Your task to perform on an android device: check android version Image 0: 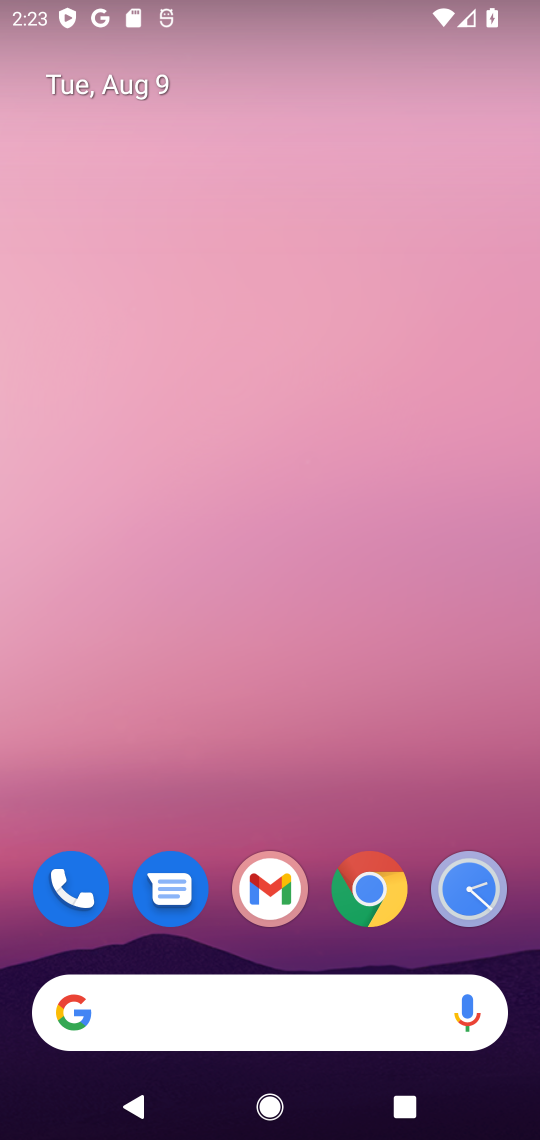
Step 0: drag from (309, 819) to (406, 0)
Your task to perform on an android device: check android version Image 1: 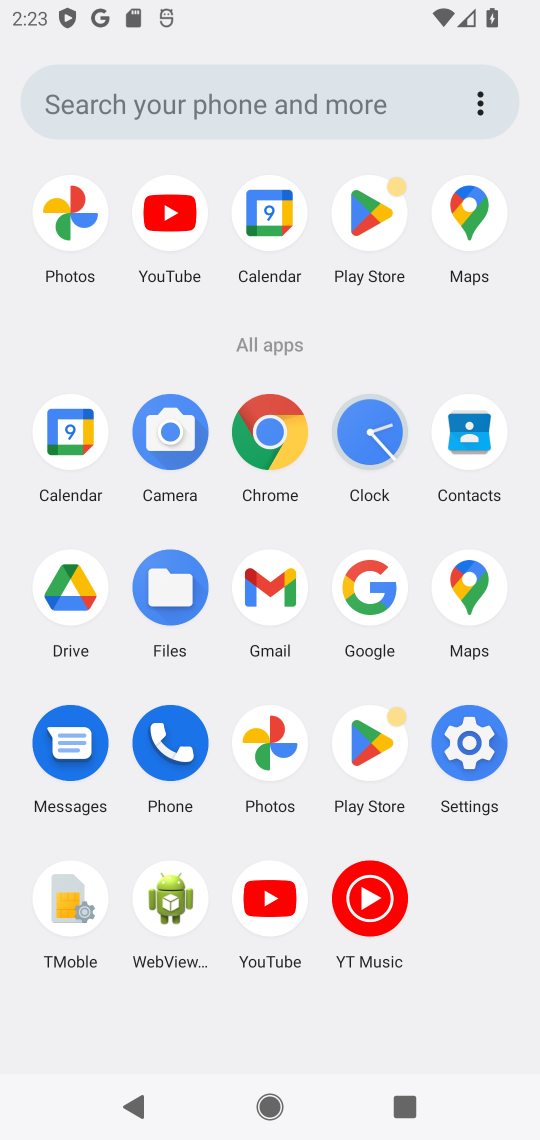
Step 1: click (473, 747)
Your task to perform on an android device: check android version Image 2: 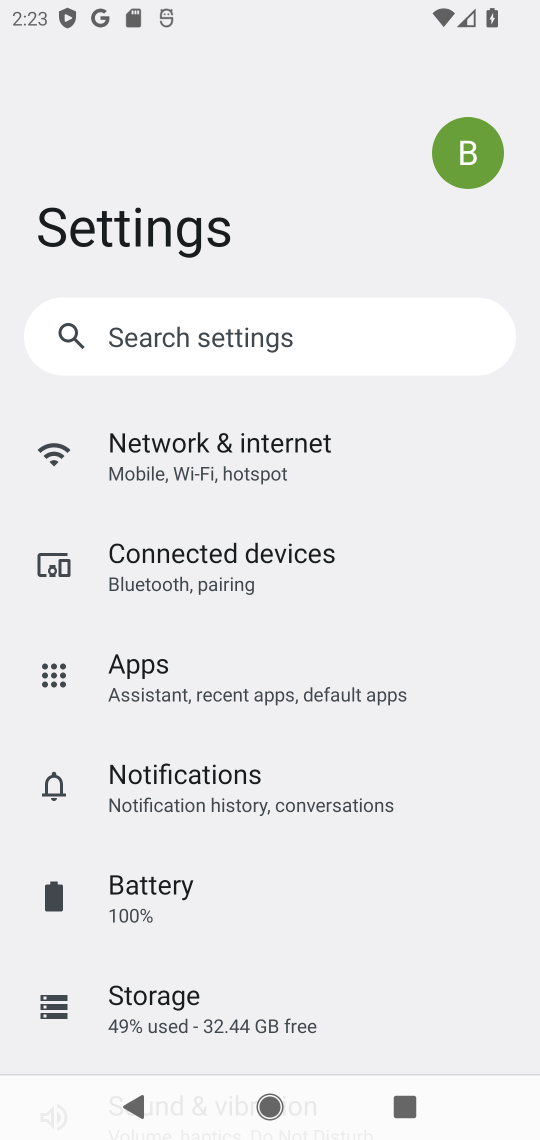
Step 2: drag from (306, 944) to (356, 0)
Your task to perform on an android device: check android version Image 3: 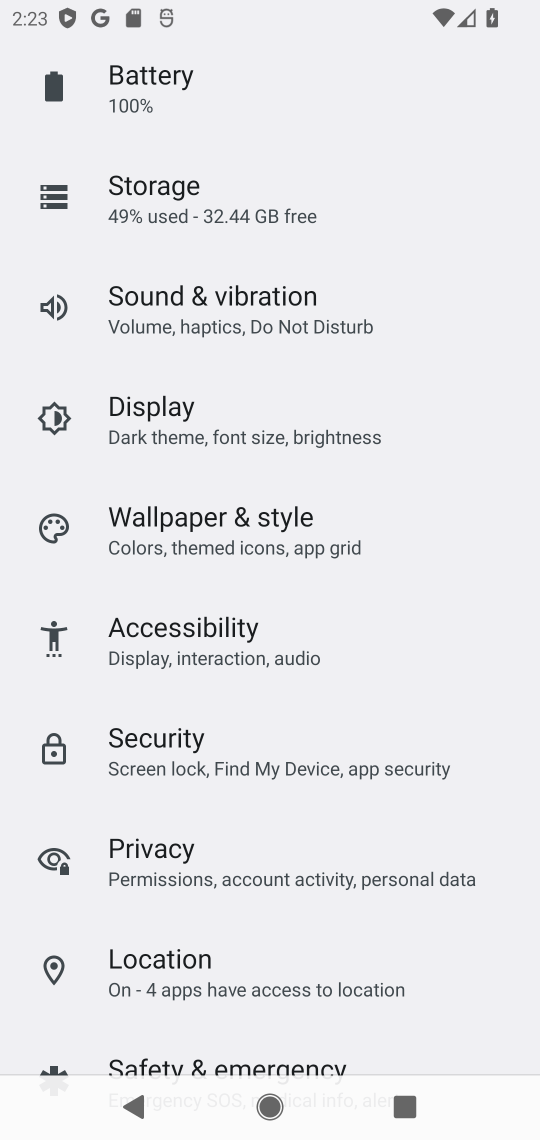
Step 3: drag from (276, 835) to (316, 12)
Your task to perform on an android device: check android version Image 4: 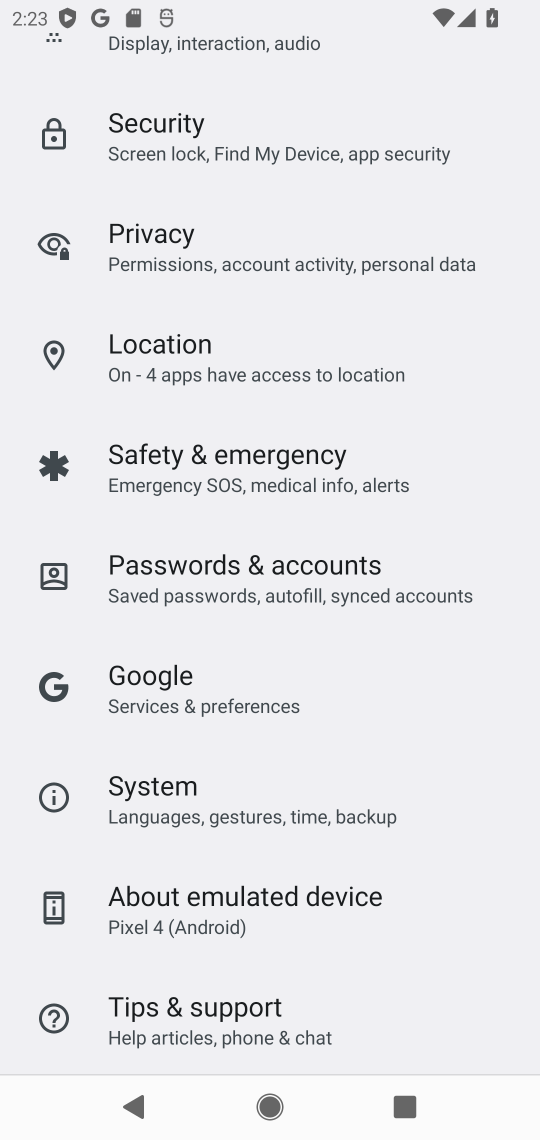
Step 4: drag from (279, 740) to (301, 241)
Your task to perform on an android device: check android version Image 5: 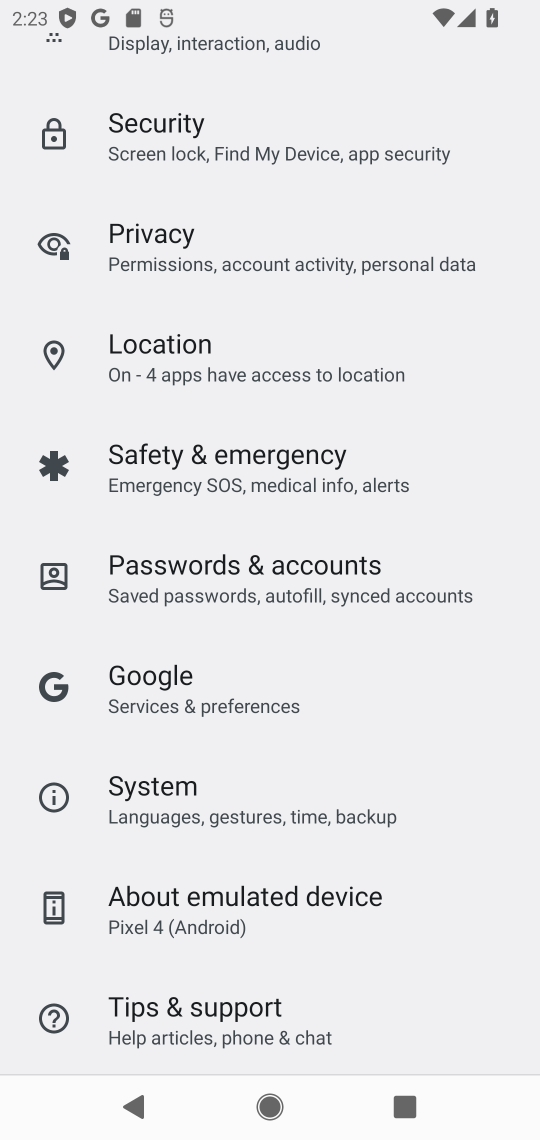
Step 5: click (247, 907)
Your task to perform on an android device: check android version Image 6: 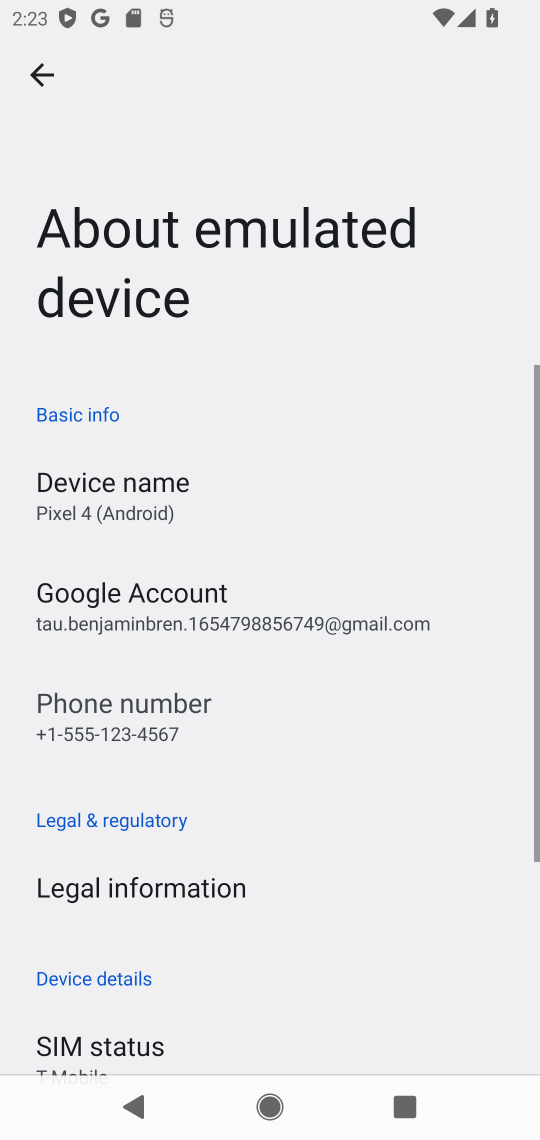
Step 6: drag from (348, 858) to (376, 203)
Your task to perform on an android device: check android version Image 7: 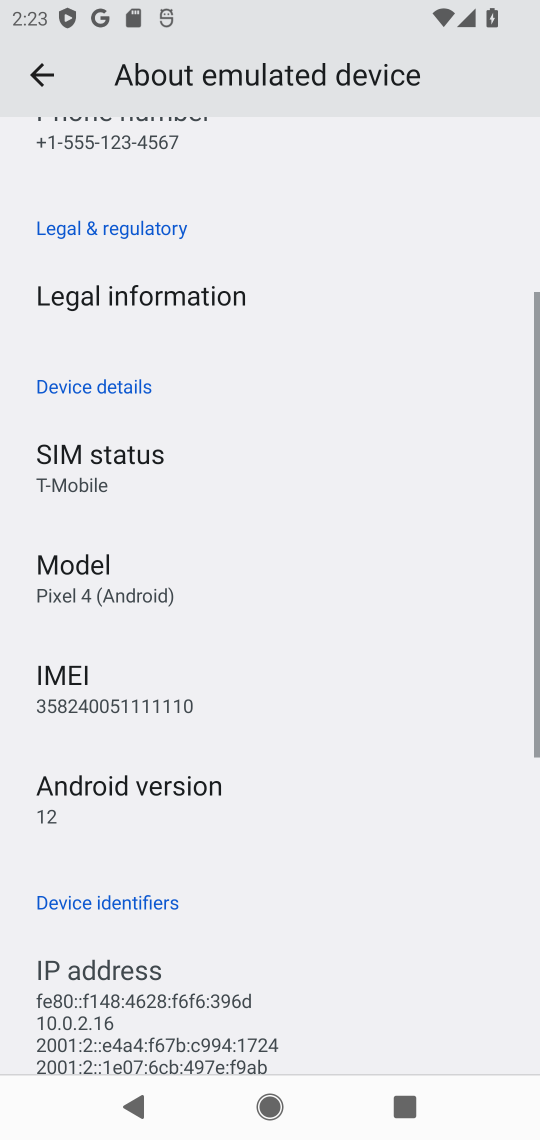
Step 7: click (178, 811)
Your task to perform on an android device: check android version Image 8: 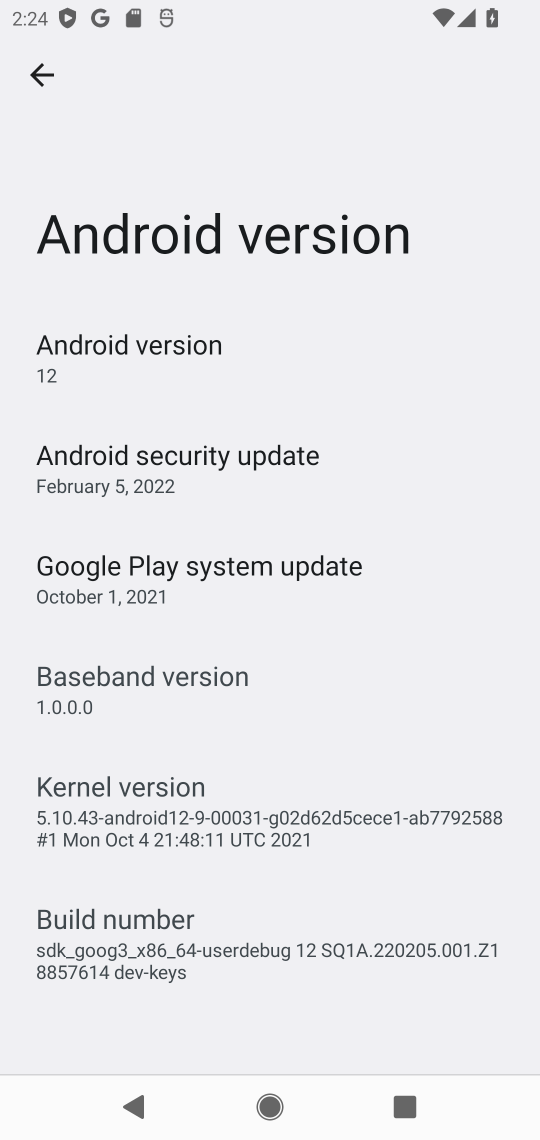
Step 8: task complete